Your task to perform on an android device: delete the emails in spam in the gmail app Image 0: 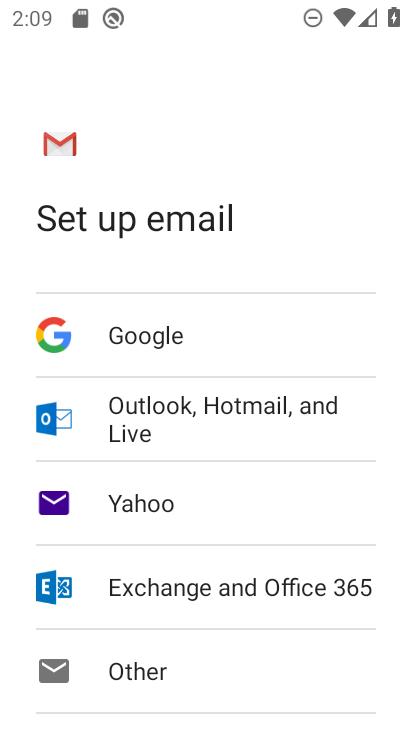
Step 0: press home button
Your task to perform on an android device: delete the emails in spam in the gmail app Image 1: 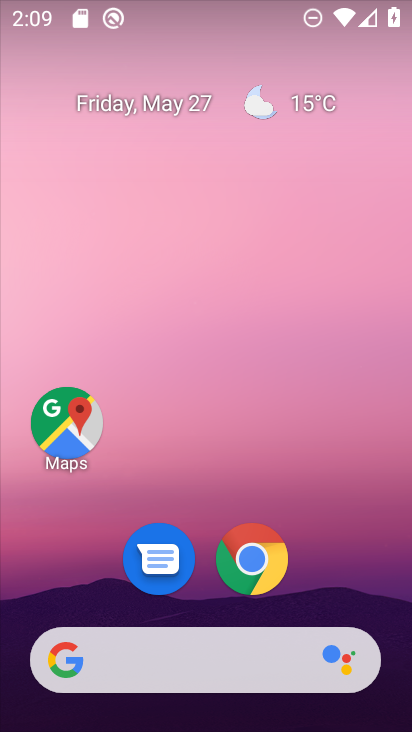
Step 1: drag from (256, 600) to (215, 67)
Your task to perform on an android device: delete the emails in spam in the gmail app Image 2: 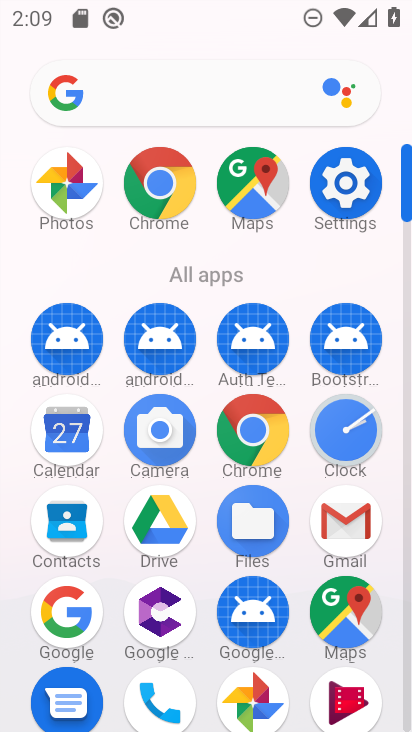
Step 2: click (338, 527)
Your task to perform on an android device: delete the emails in spam in the gmail app Image 3: 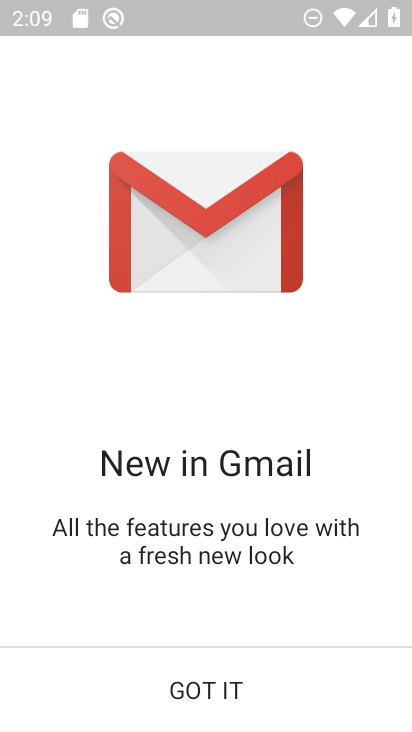
Step 3: click (290, 671)
Your task to perform on an android device: delete the emails in spam in the gmail app Image 4: 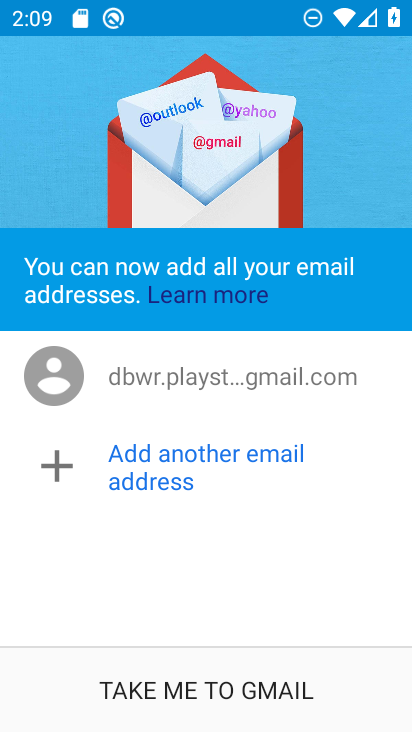
Step 4: click (290, 671)
Your task to perform on an android device: delete the emails in spam in the gmail app Image 5: 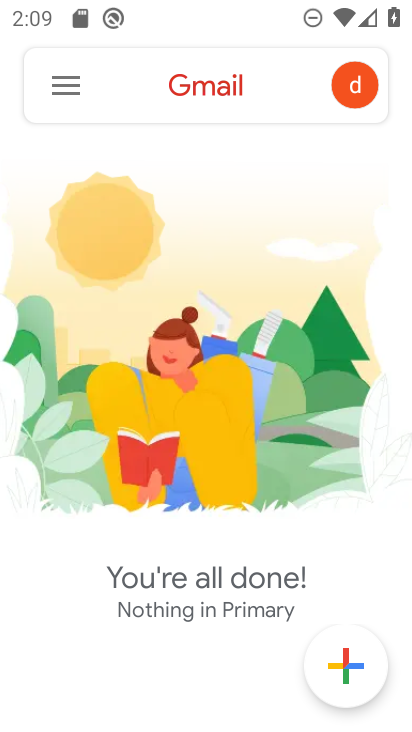
Step 5: click (68, 95)
Your task to perform on an android device: delete the emails in spam in the gmail app Image 6: 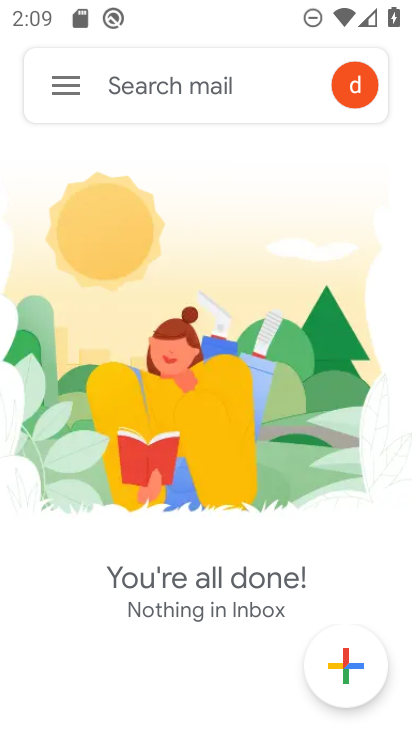
Step 6: click (65, 74)
Your task to perform on an android device: delete the emails in spam in the gmail app Image 7: 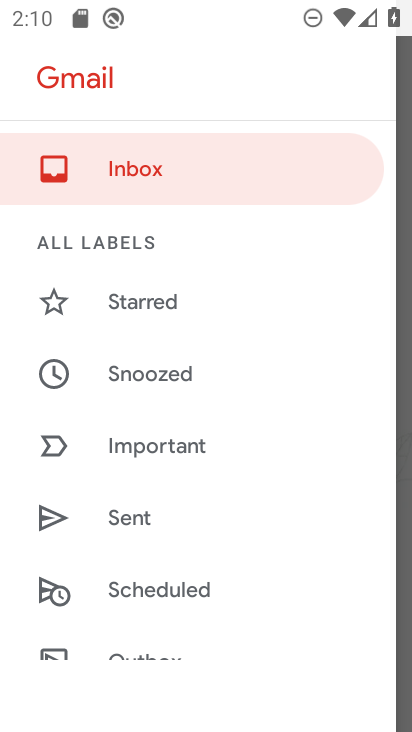
Step 7: drag from (175, 591) to (229, 66)
Your task to perform on an android device: delete the emails in spam in the gmail app Image 8: 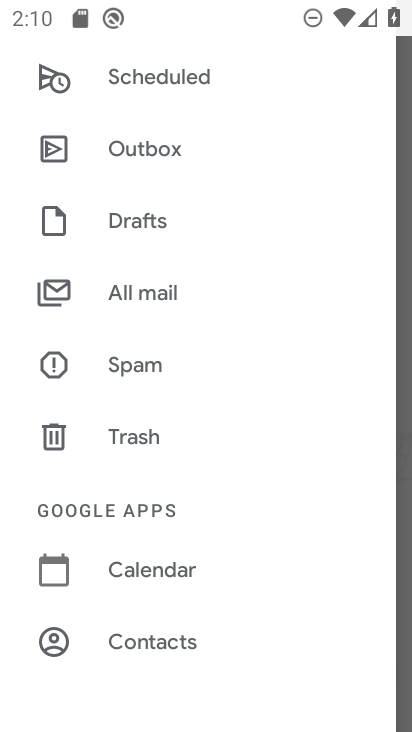
Step 8: click (153, 358)
Your task to perform on an android device: delete the emails in spam in the gmail app Image 9: 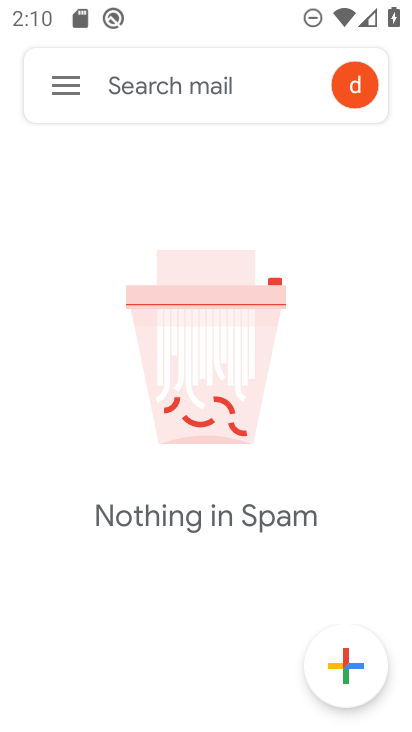
Step 9: task complete